Your task to perform on an android device: toggle data saver in the chrome app Image 0: 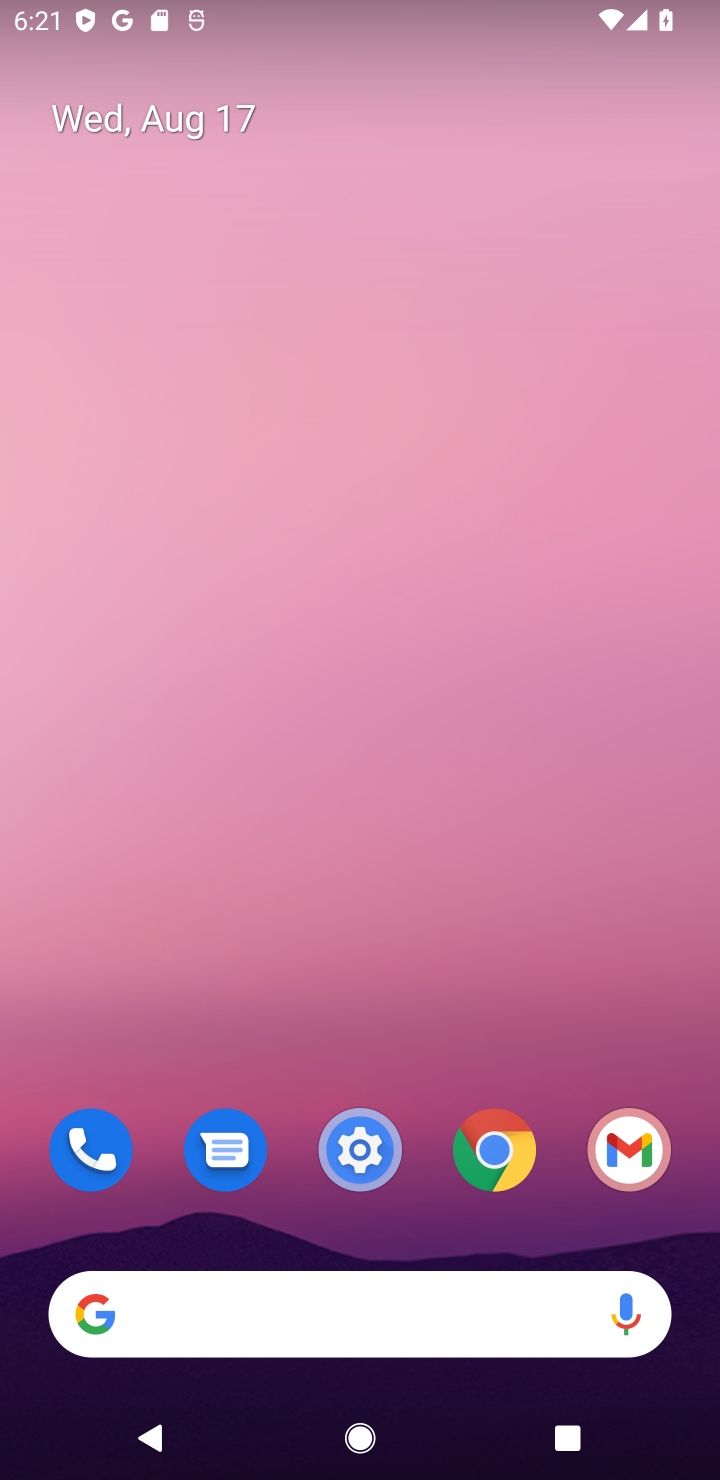
Step 0: click (512, 1154)
Your task to perform on an android device: toggle data saver in the chrome app Image 1: 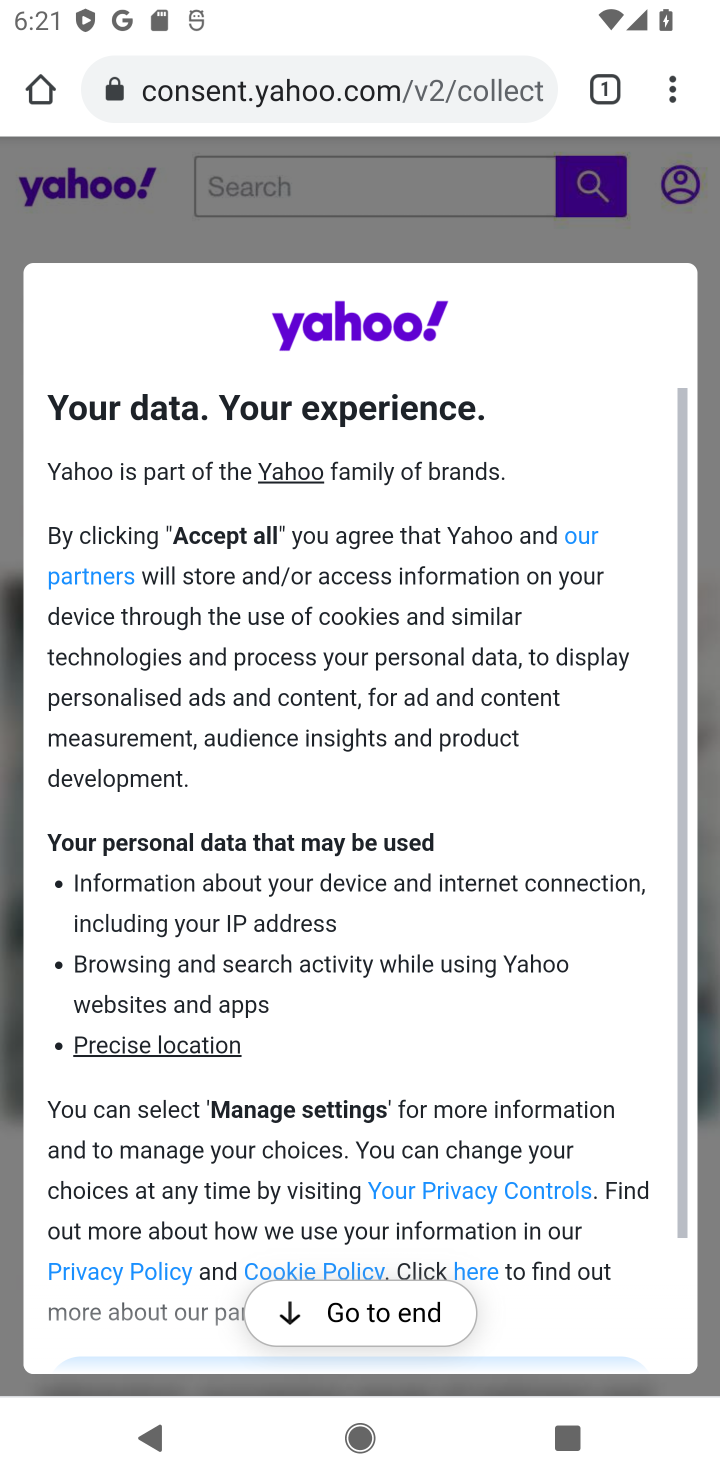
Step 1: click (673, 92)
Your task to perform on an android device: toggle data saver in the chrome app Image 2: 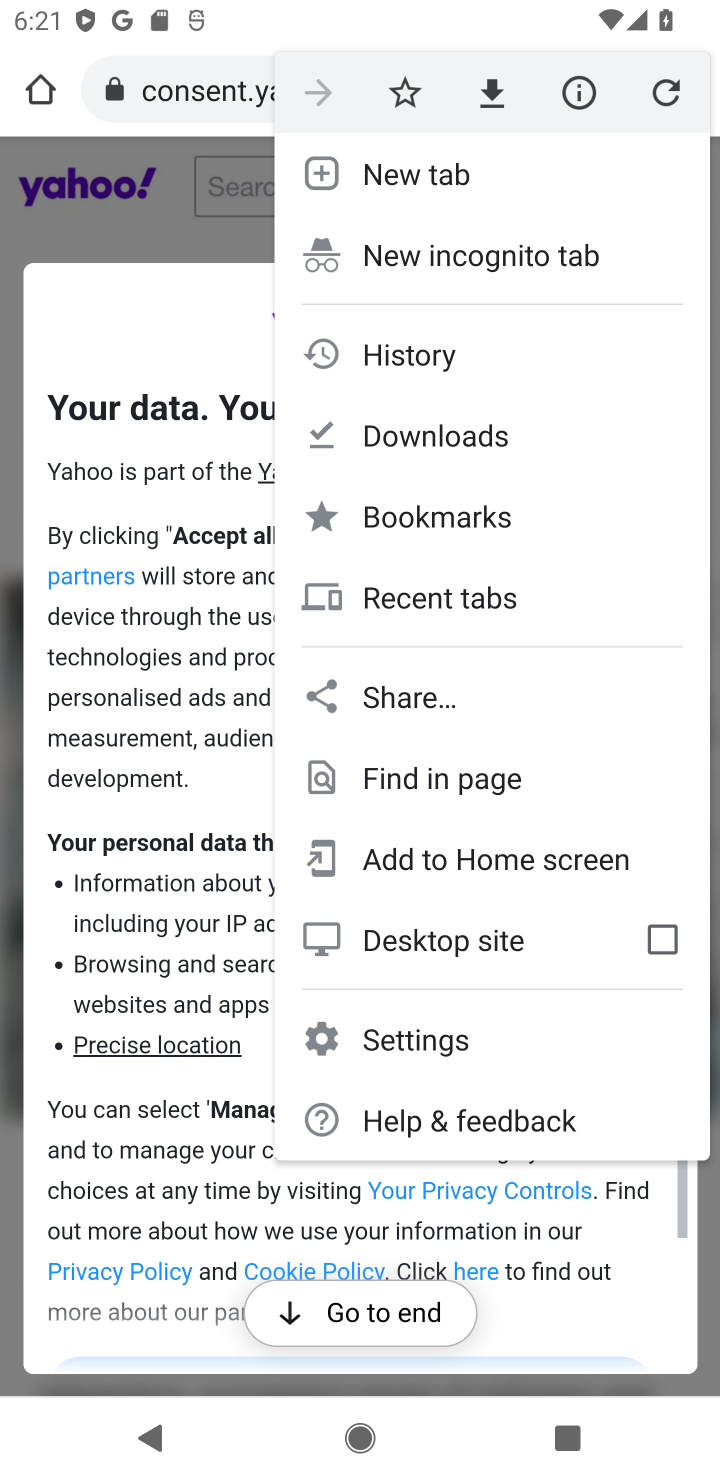
Step 2: click (379, 1023)
Your task to perform on an android device: toggle data saver in the chrome app Image 3: 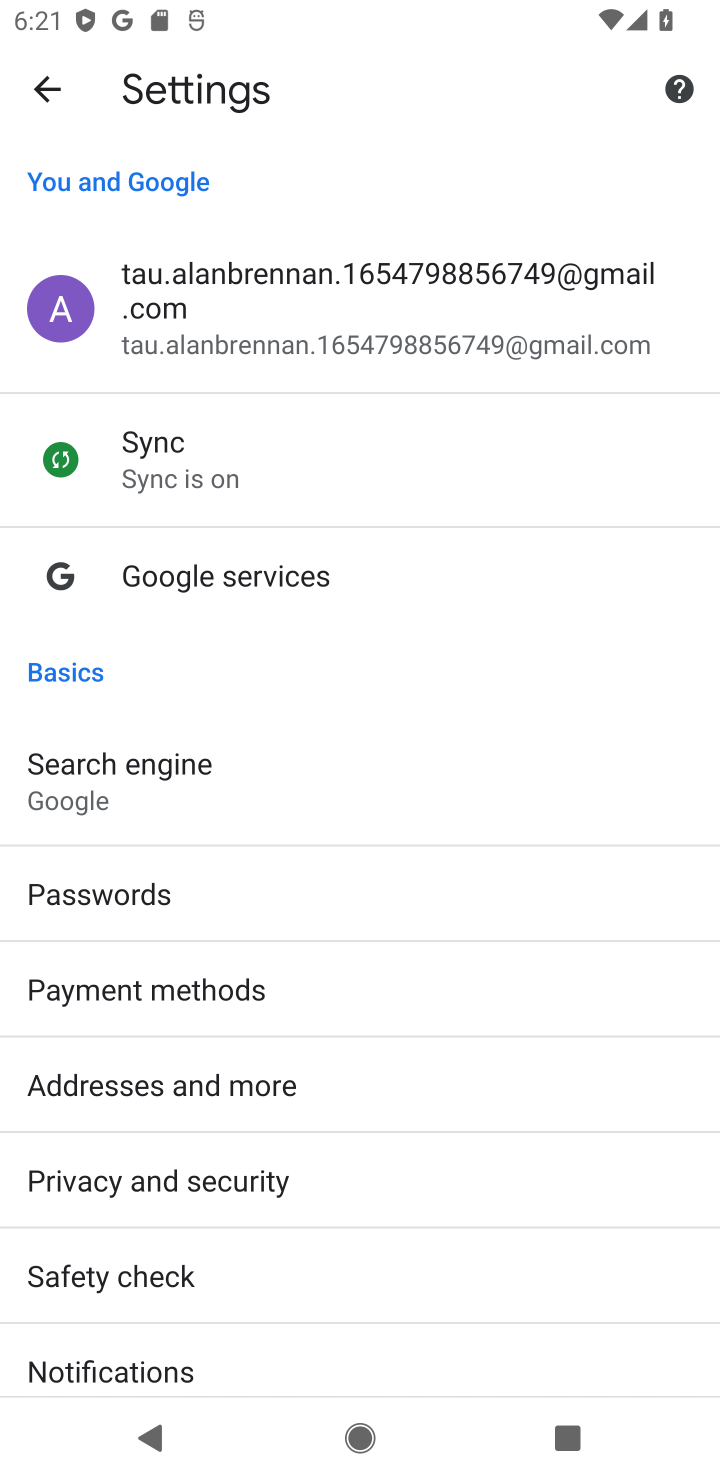
Step 3: drag from (141, 1301) to (195, 335)
Your task to perform on an android device: toggle data saver in the chrome app Image 4: 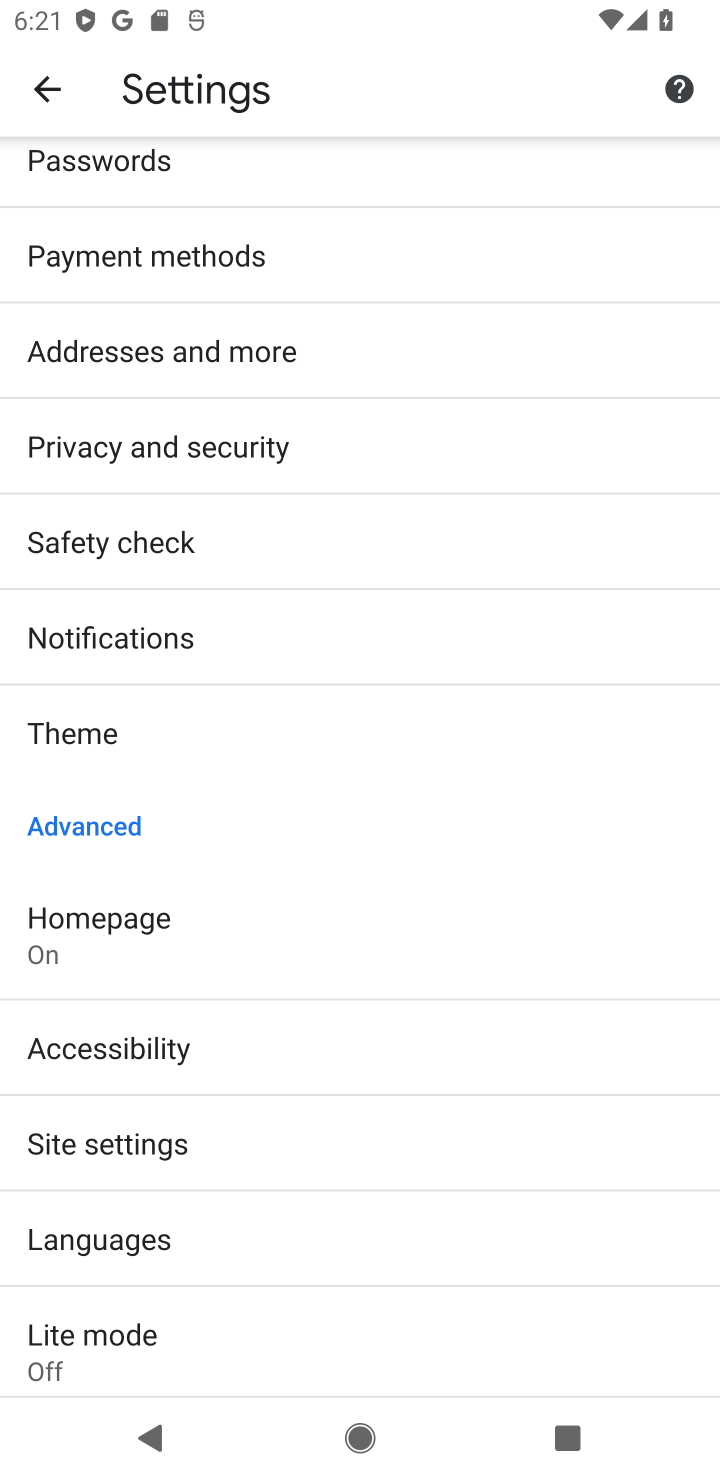
Step 4: click (78, 1335)
Your task to perform on an android device: toggle data saver in the chrome app Image 5: 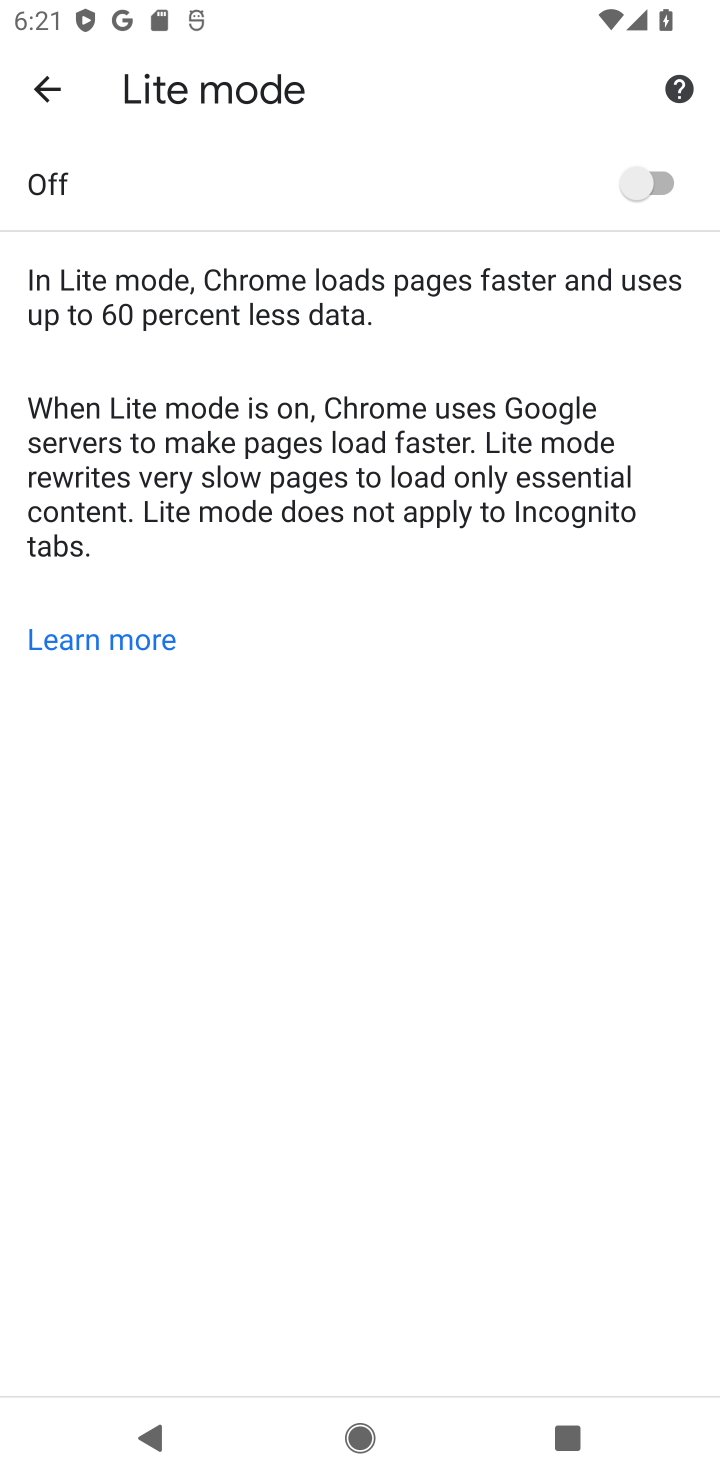
Step 5: click (655, 175)
Your task to perform on an android device: toggle data saver in the chrome app Image 6: 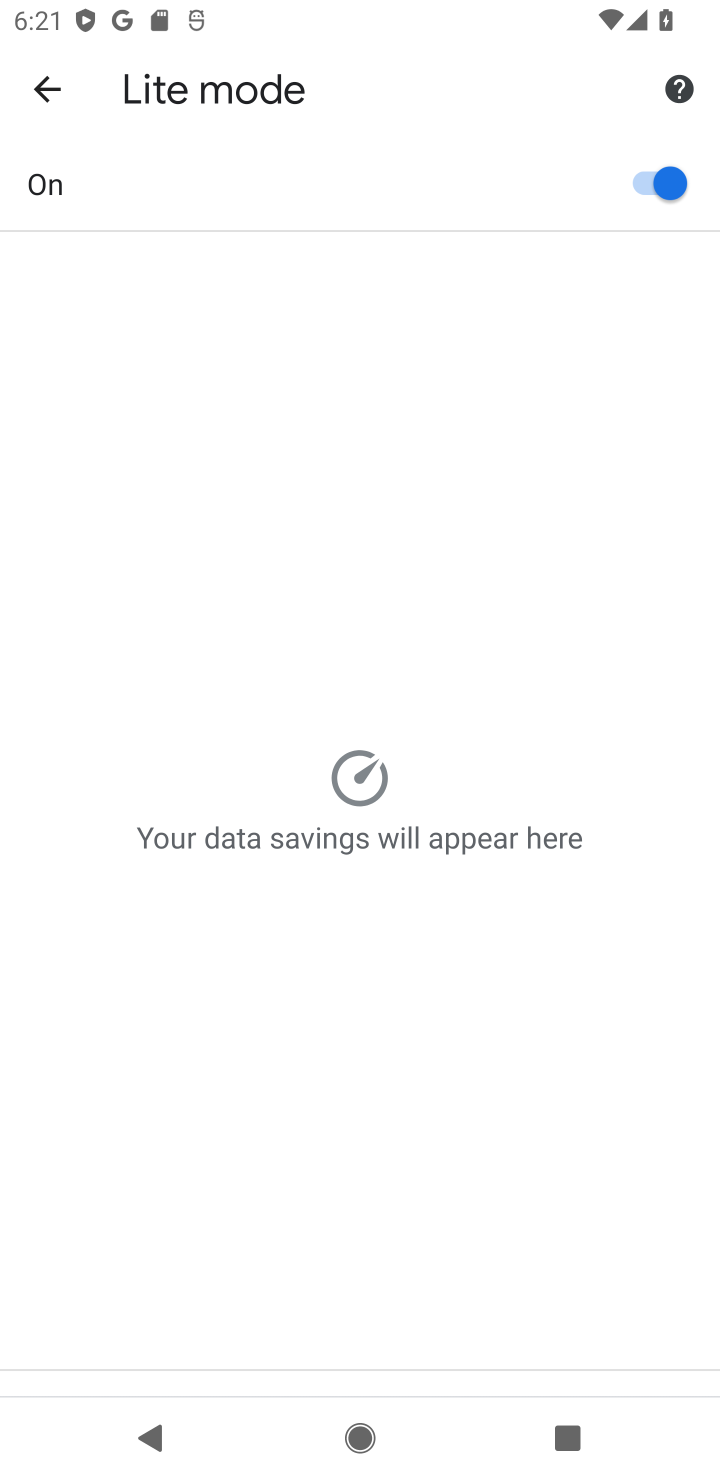
Step 6: task complete